Your task to perform on an android device: Open ESPN.com Image 0: 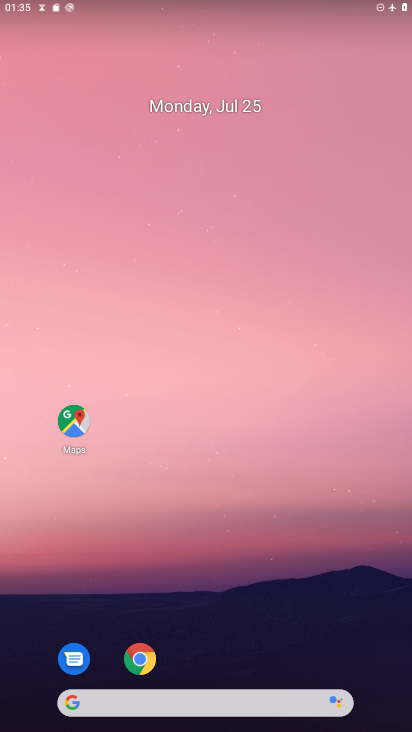
Step 0: drag from (251, 663) to (250, 210)
Your task to perform on an android device: Open ESPN.com Image 1: 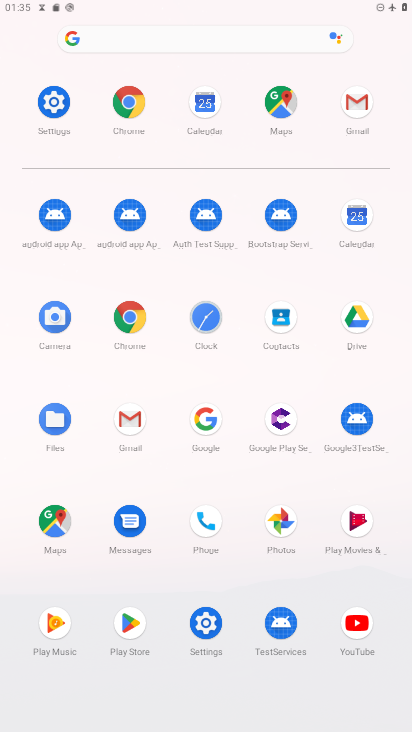
Step 1: click (141, 106)
Your task to perform on an android device: Open ESPN.com Image 2: 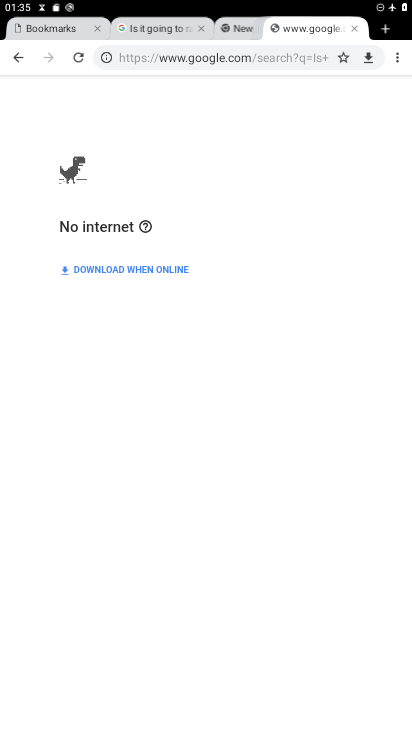
Step 2: click (387, 23)
Your task to perform on an android device: Open ESPN.com Image 3: 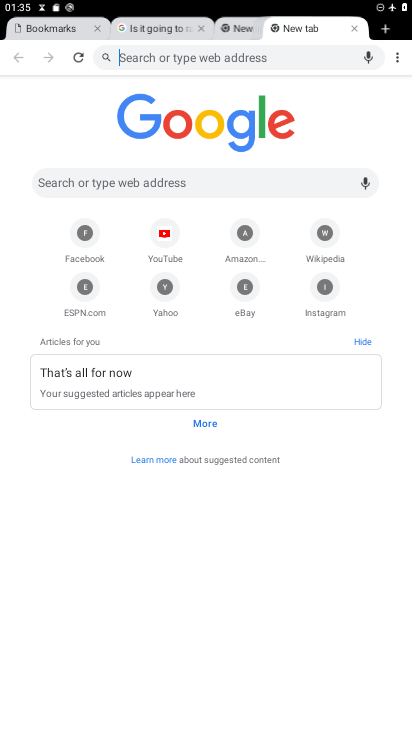
Step 3: click (89, 293)
Your task to perform on an android device: Open ESPN.com Image 4: 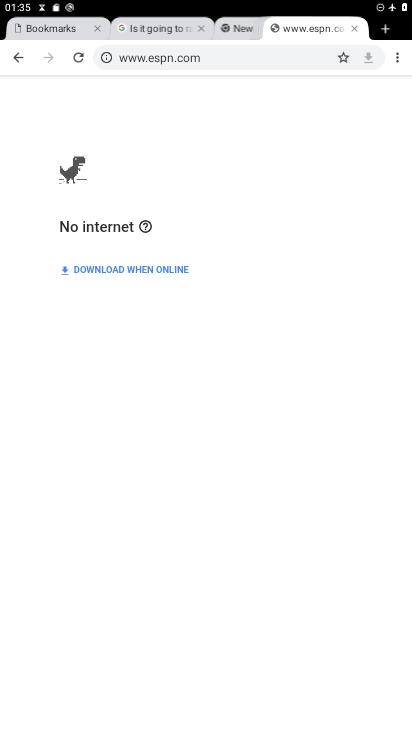
Step 4: task complete